Your task to perform on an android device: What's the weather today? Image 0: 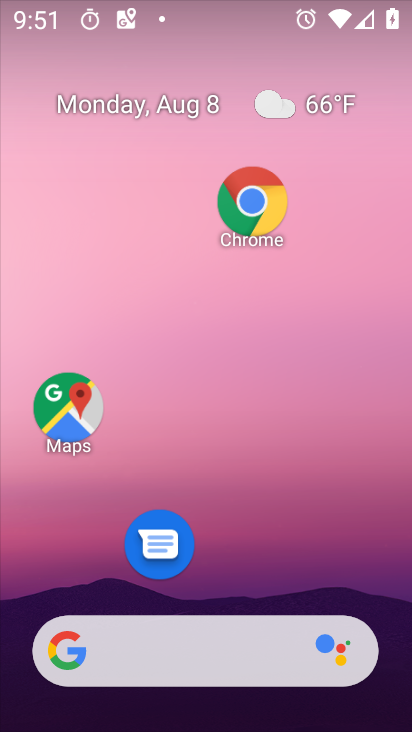
Step 0: press home button
Your task to perform on an android device: What's the weather today? Image 1: 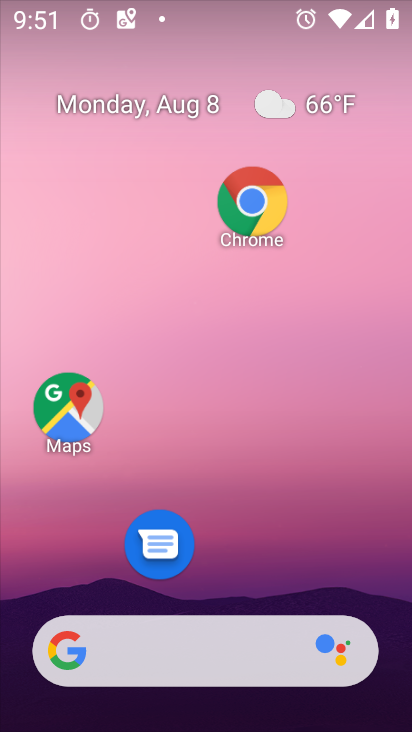
Step 1: click (313, 106)
Your task to perform on an android device: What's the weather today? Image 2: 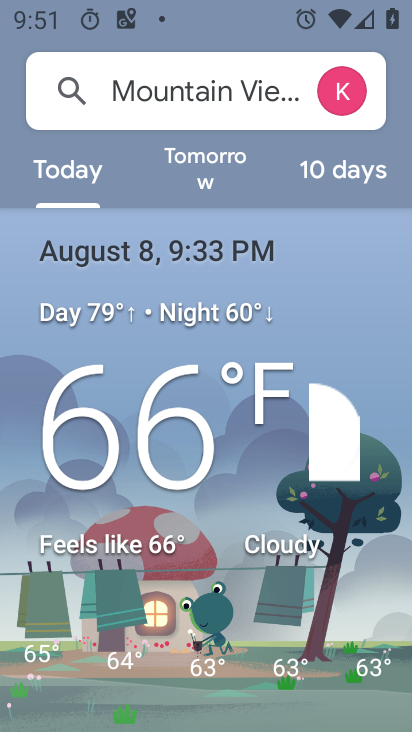
Step 2: drag from (225, 602) to (261, 237)
Your task to perform on an android device: What's the weather today? Image 3: 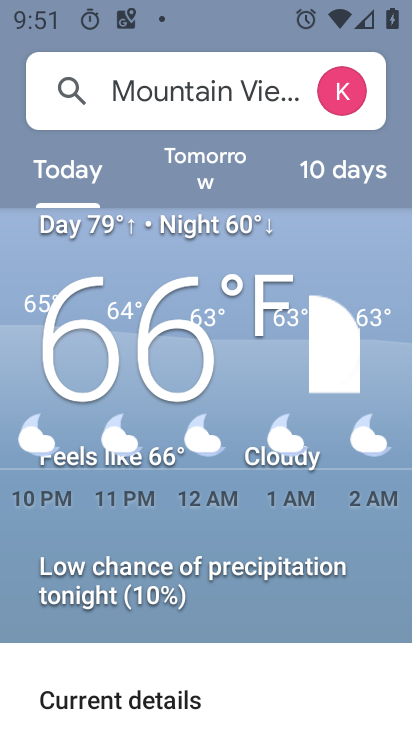
Step 3: drag from (232, 650) to (238, 265)
Your task to perform on an android device: What's the weather today? Image 4: 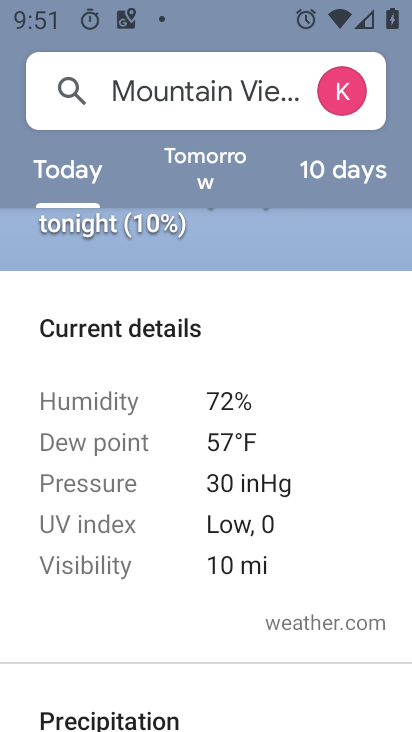
Step 4: drag from (245, 281) to (251, 558)
Your task to perform on an android device: What's the weather today? Image 5: 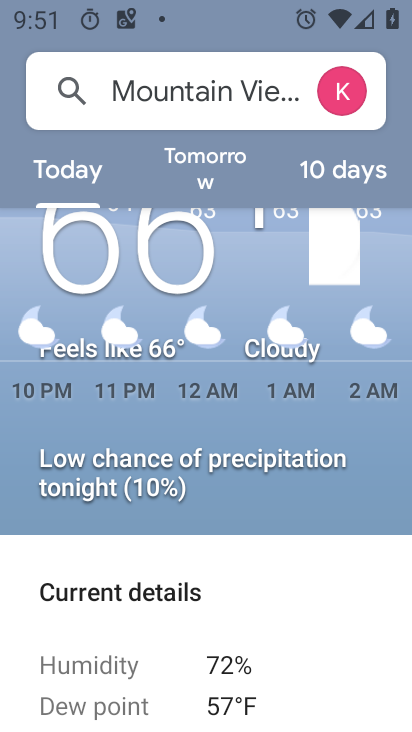
Step 5: click (359, 333)
Your task to perform on an android device: What's the weather today? Image 6: 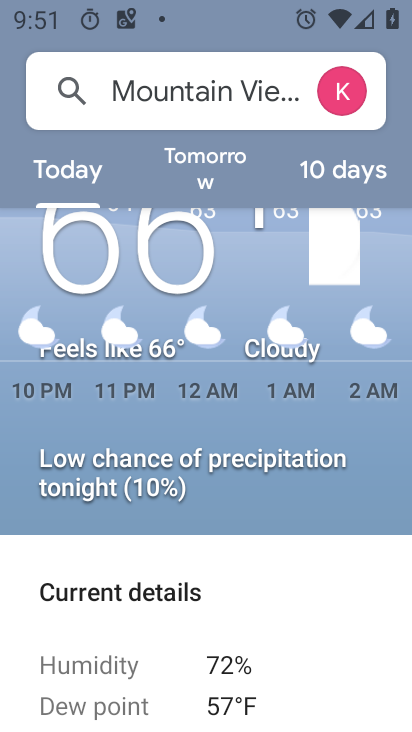
Step 6: task complete